Your task to perform on an android device: Open accessibility settings Image 0: 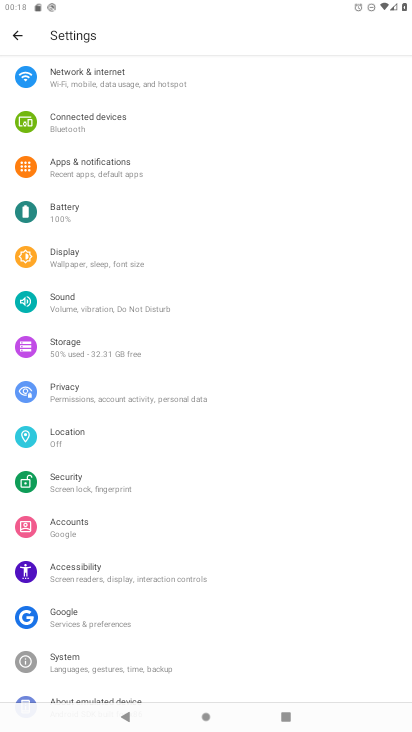
Step 0: drag from (166, 658) to (228, 260)
Your task to perform on an android device: Open accessibility settings Image 1: 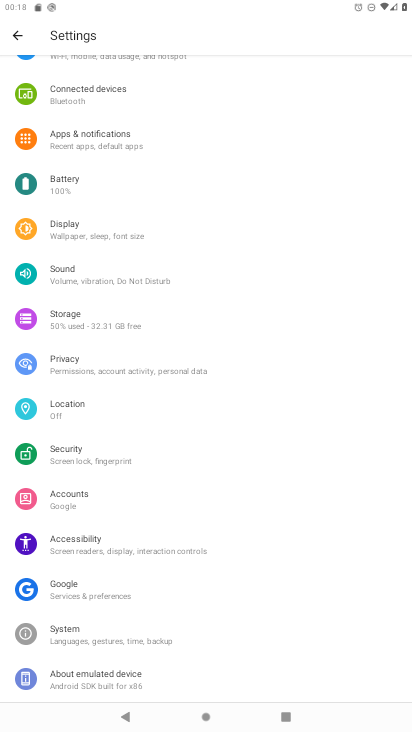
Step 1: click (113, 543)
Your task to perform on an android device: Open accessibility settings Image 2: 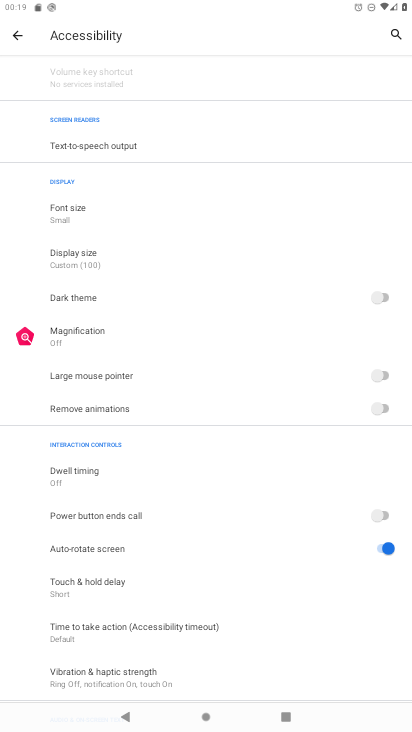
Step 2: task complete